Your task to perform on an android device: Search for a home improvement project you can do. Image 0: 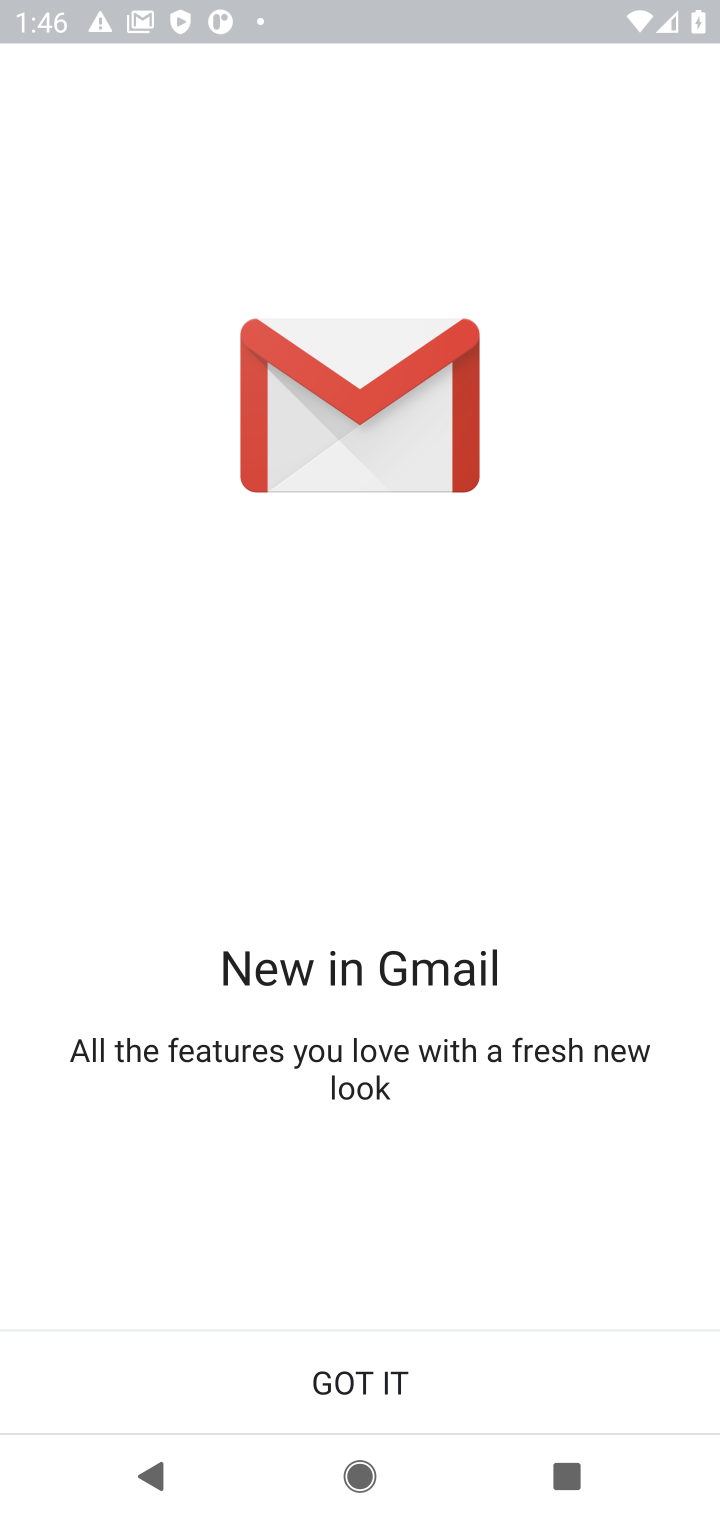
Step 0: press home button
Your task to perform on an android device: Search for a home improvement project you can do. Image 1: 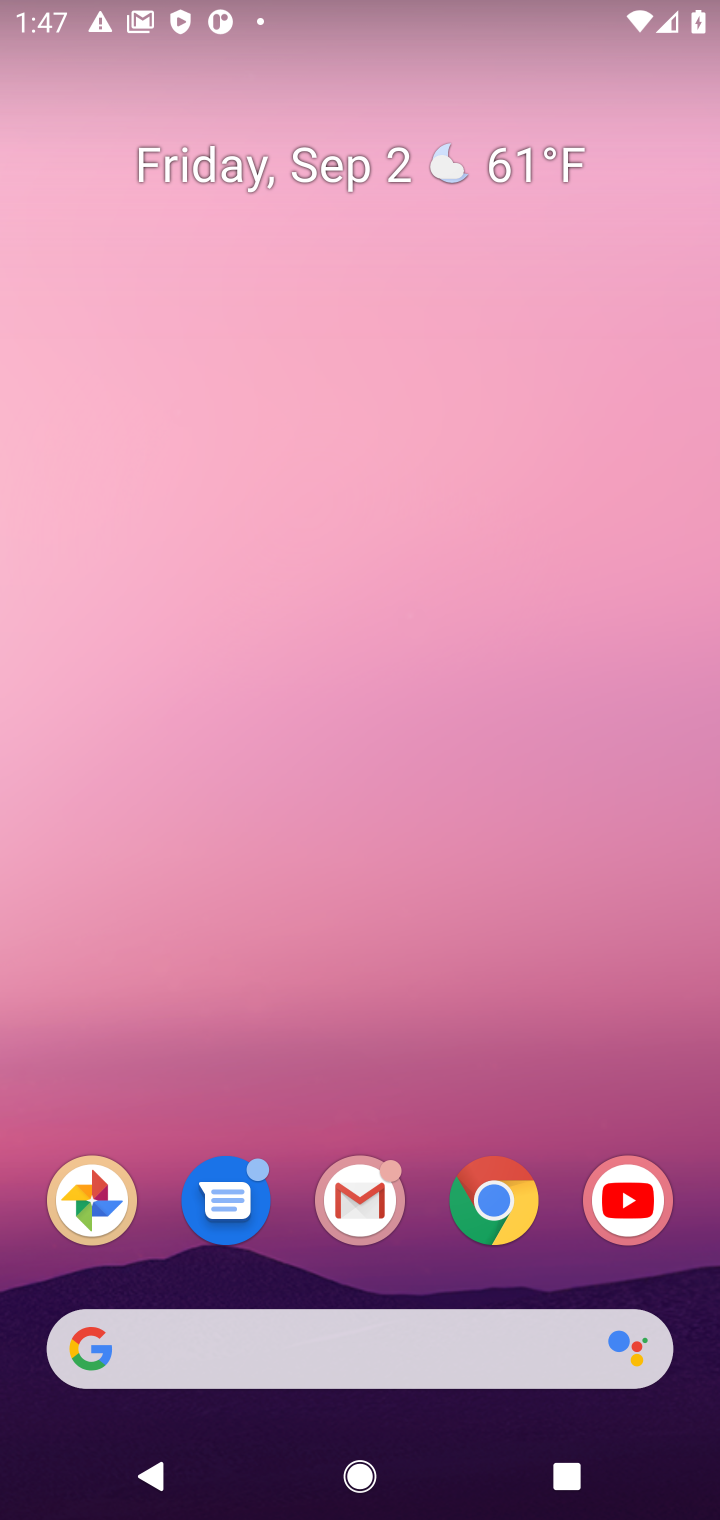
Step 1: click (497, 1203)
Your task to perform on an android device: Search for a home improvement project you can do. Image 2: 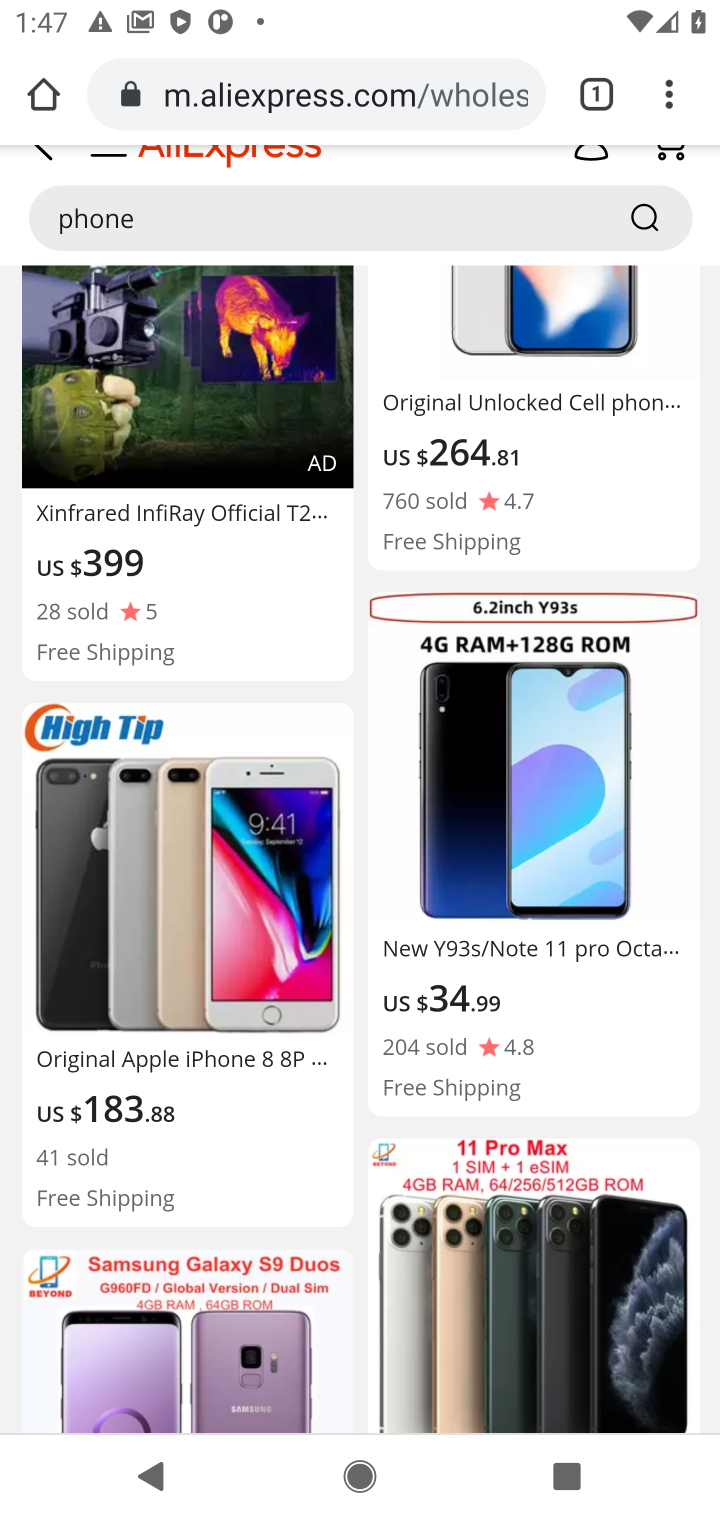
Step 2: click (409, 89)
Your task to perform on an android device: Search for a home improvement project you can do. Image 3: 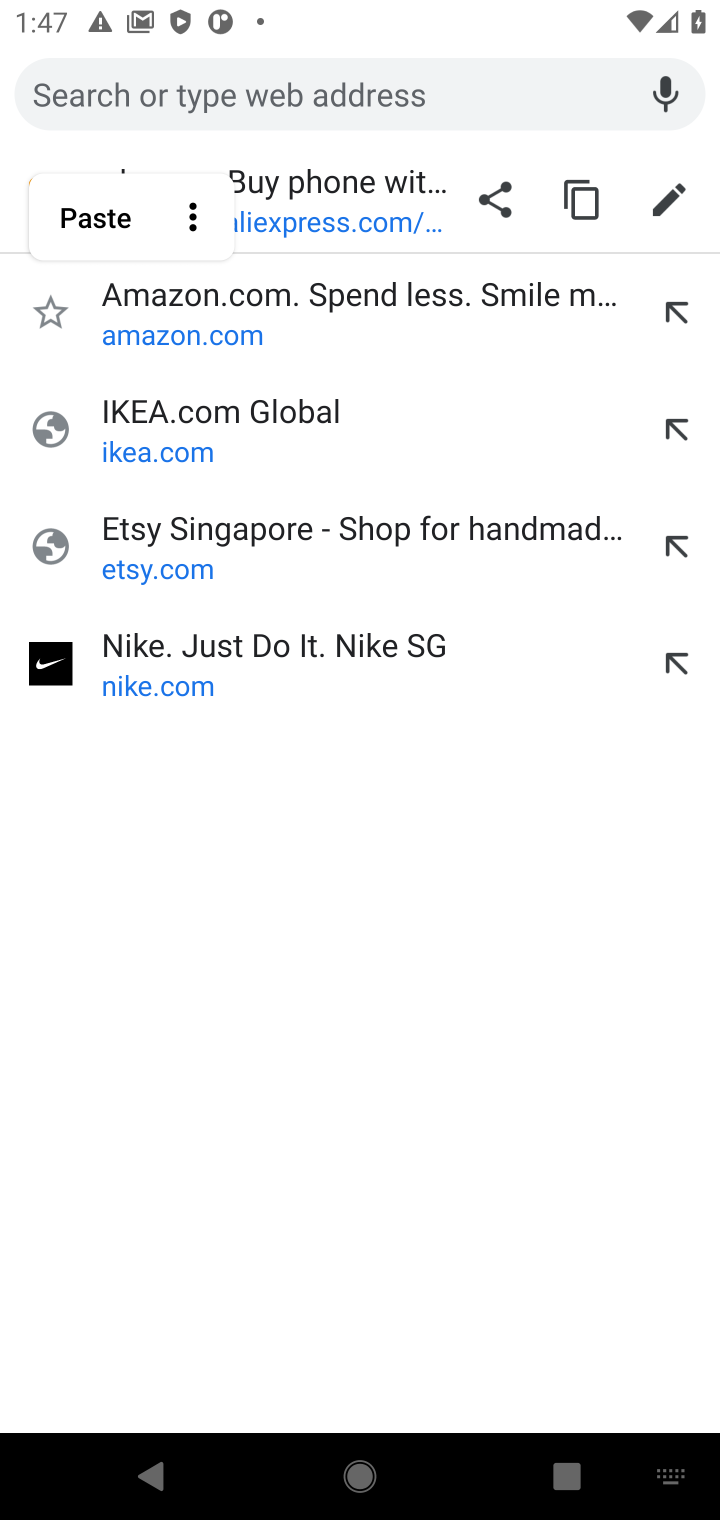
Step 3: press enter
Your task to perform on an android device: Search for a home improvement project you can do. Image 4: 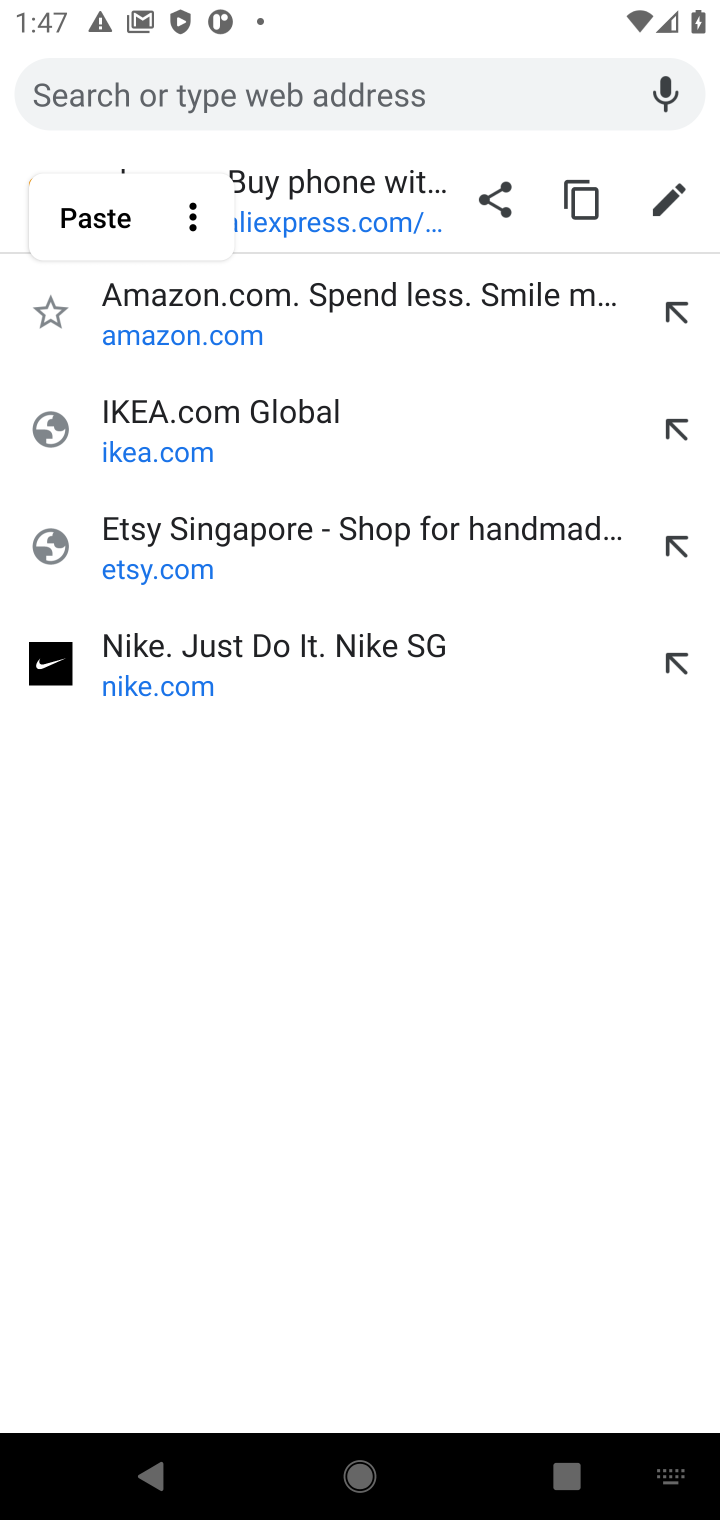
Step 4: type "home improvement project you can do"
Your task to perform on an android device: Search for a home improvement project you can do. Image 5: 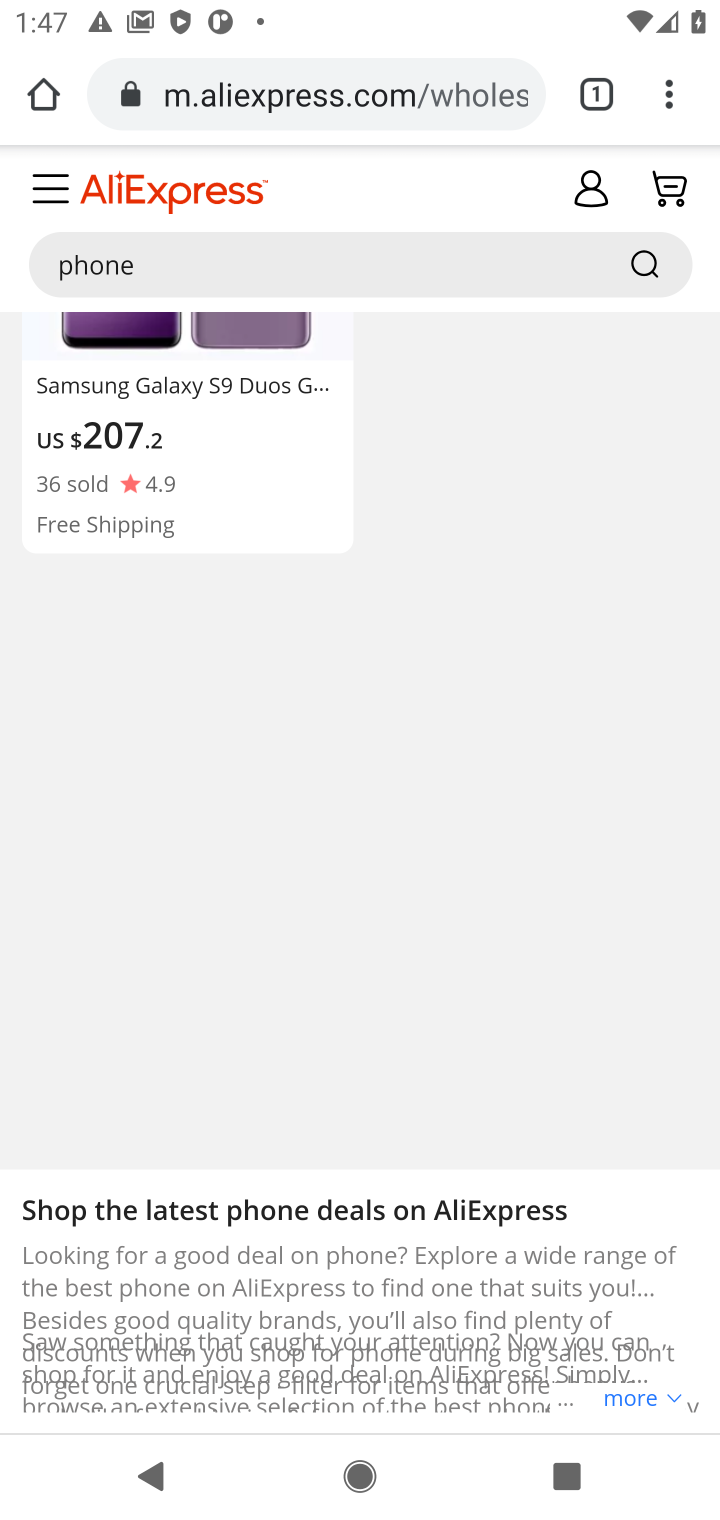
Step 5: click (298, 96)
Your task to perform on an android device: Search for a home improvement project you can do. Image 6: 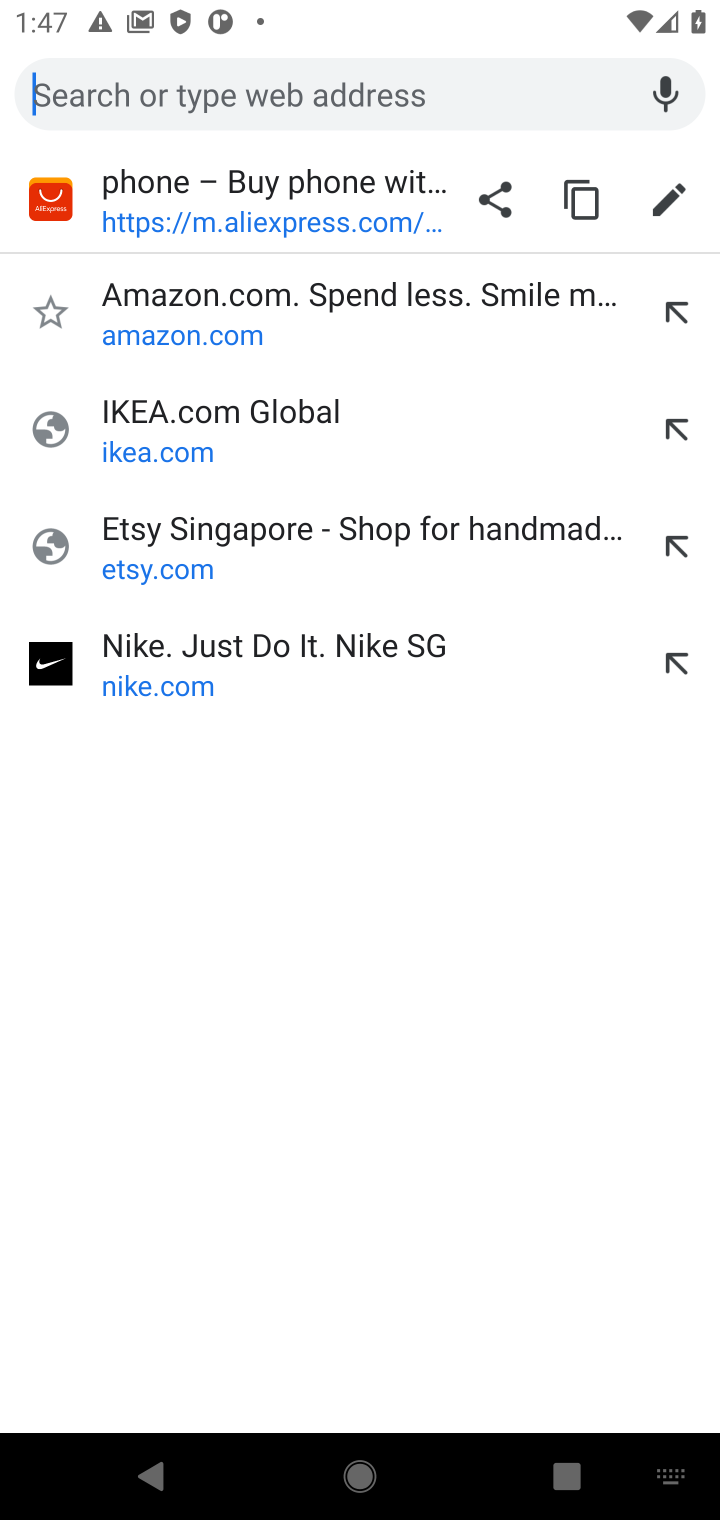
Step 6: type "home improvement project you can do"
Your task to perform on an android device: Search for a home improvement project you can do. Image 7: 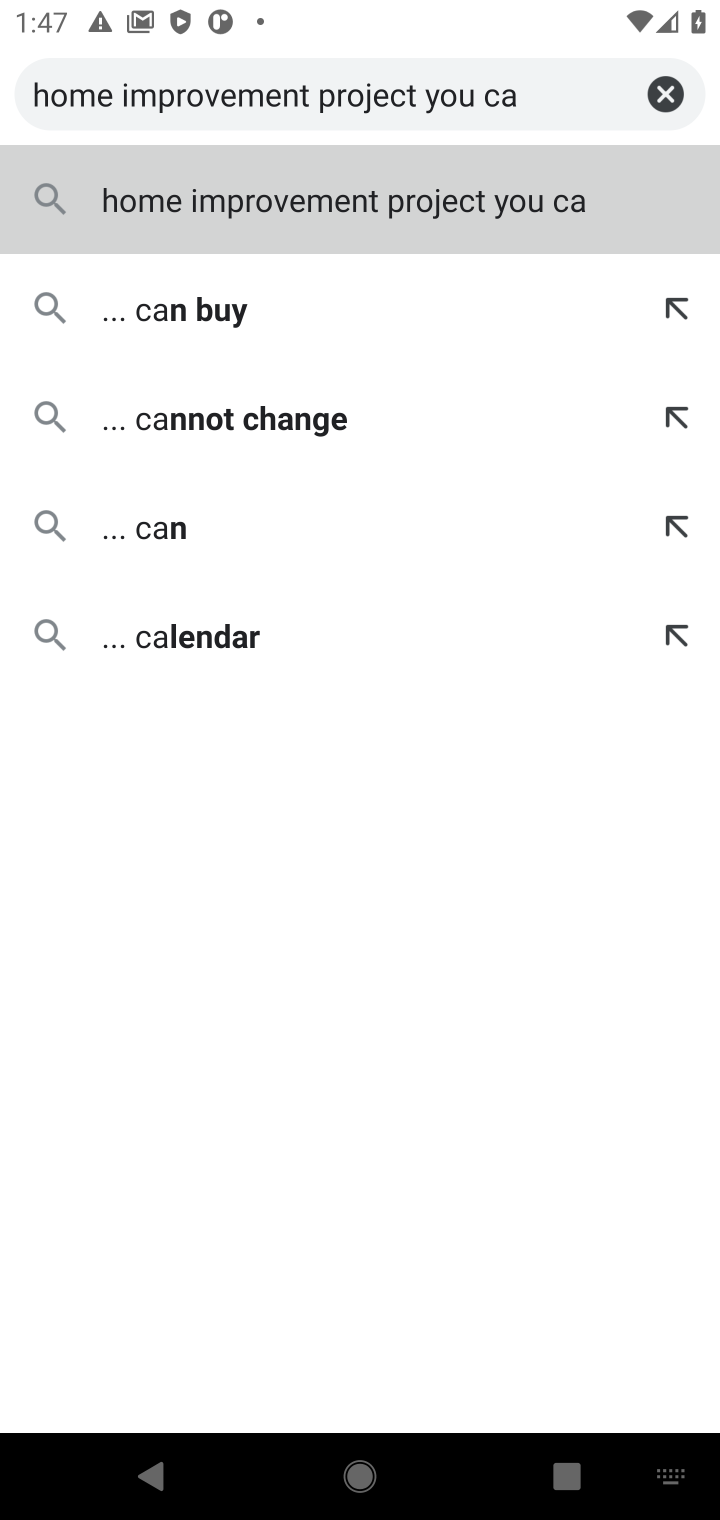
Step 7: press enter
Your task to perform on an android device: Search for a home improvement project you can do. Image 8: 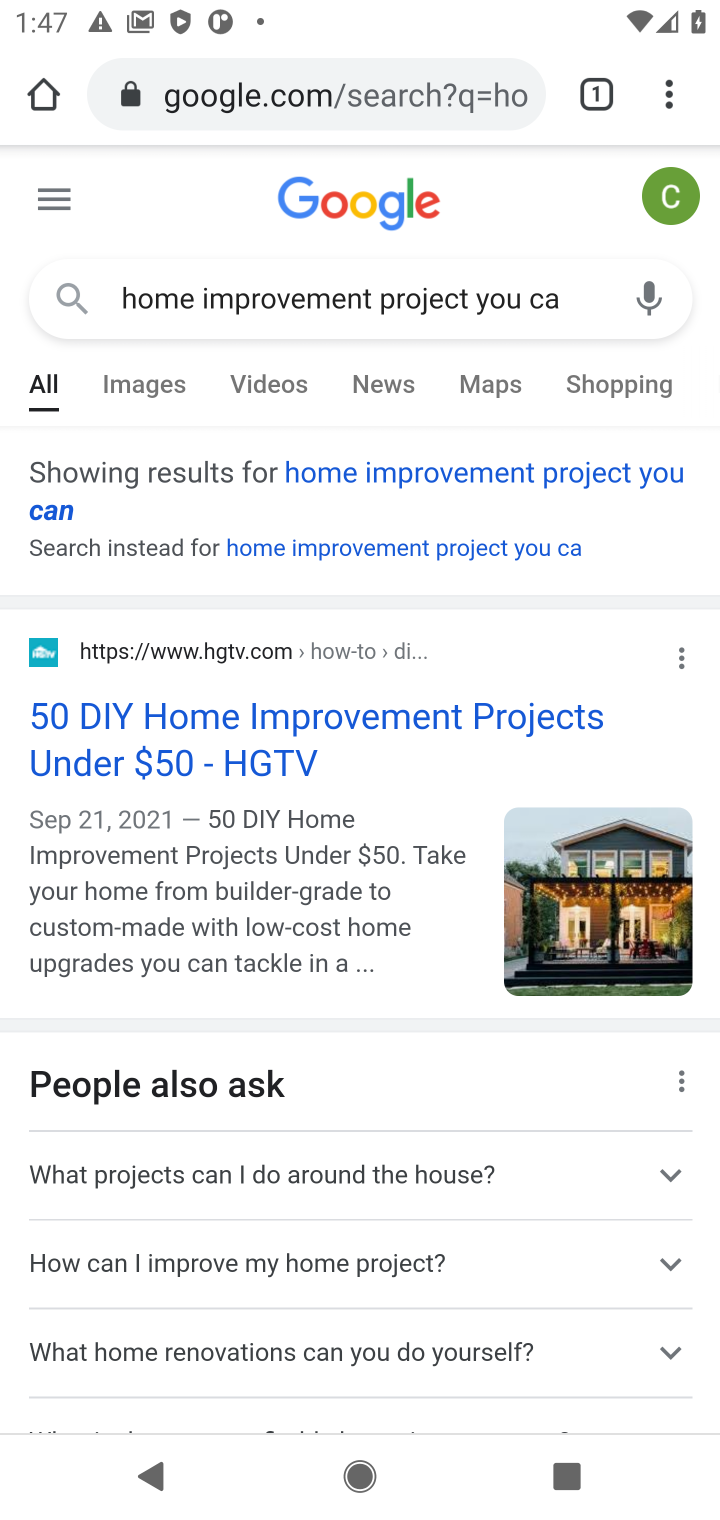
Step 8: click (318, 713)
Your task to perform on an android device: Search for a home improvement project you can do. Image 9: 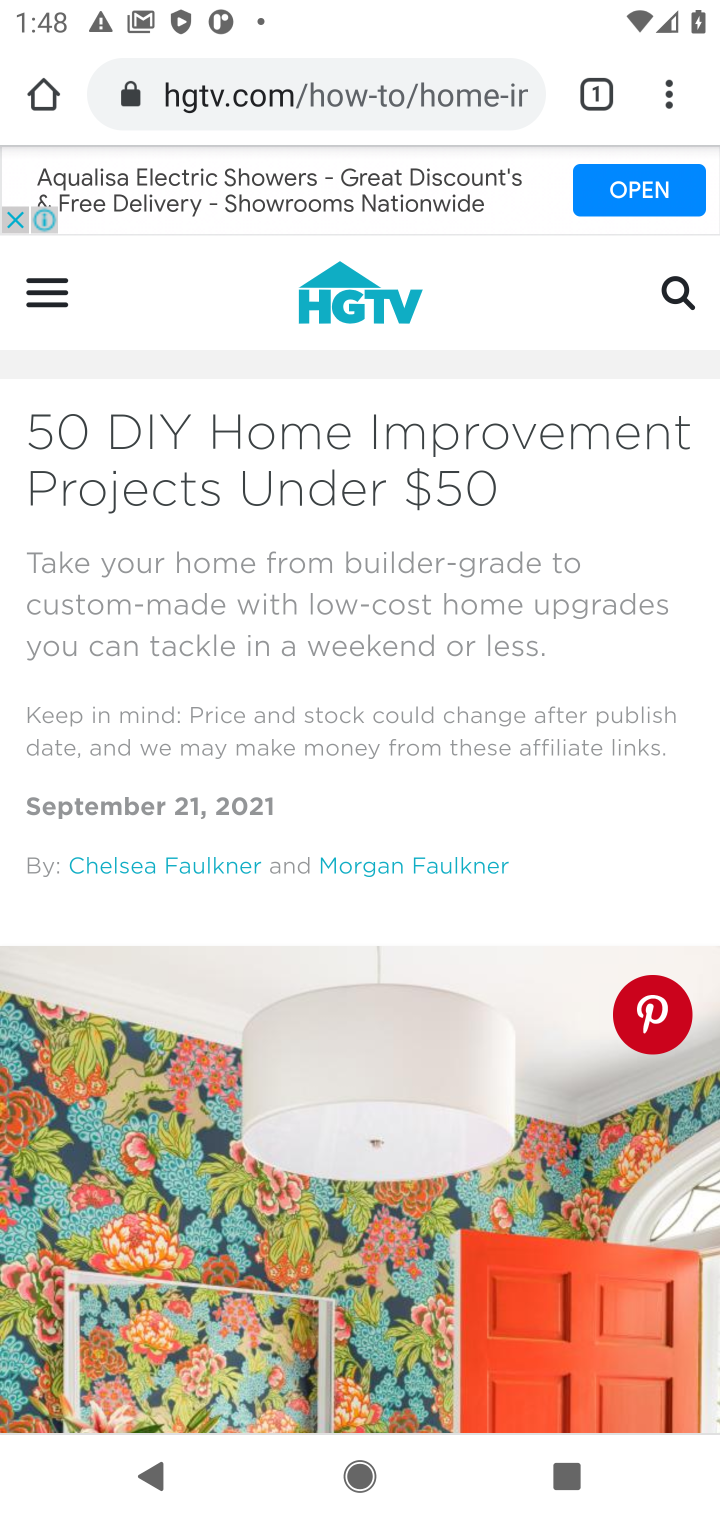
Step 9: task complete